Your task to perform on an android device: Open the web browser Image 0: 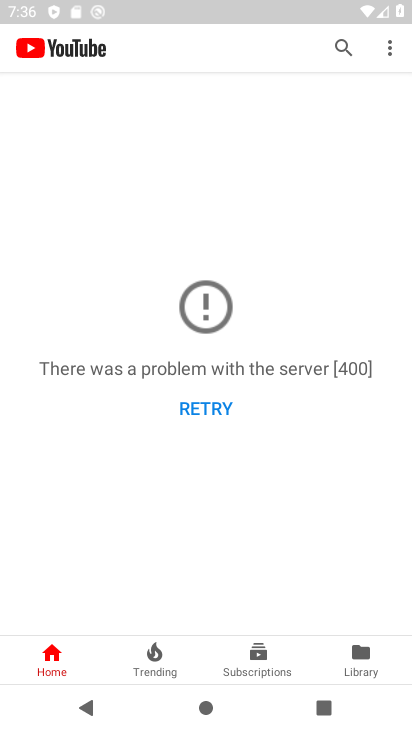
Step 0: press home button
Your task to perform on an android device: Open the web browser Image 1: 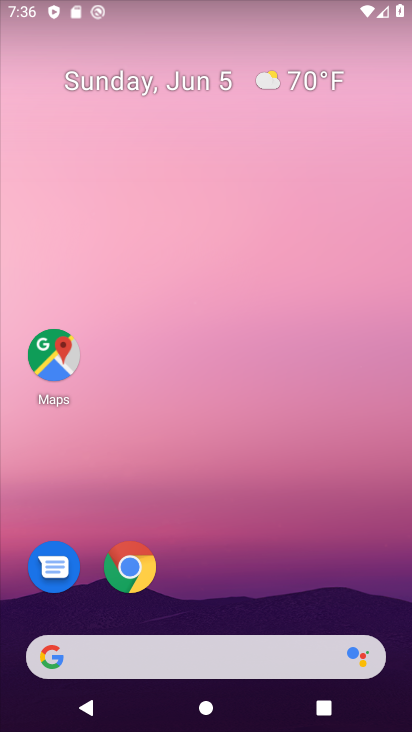
Step 1: click (128, 574)
Your task to perform on an android device: Open the web browser Image 2: 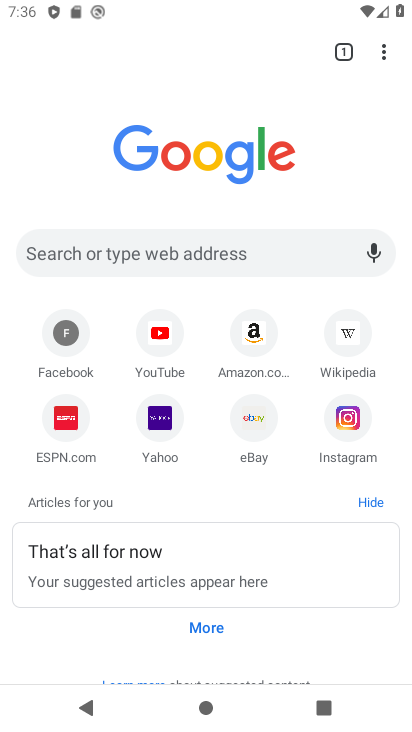
Step 2: task complete